Your task to perform on an android device: delete location history Image 0: 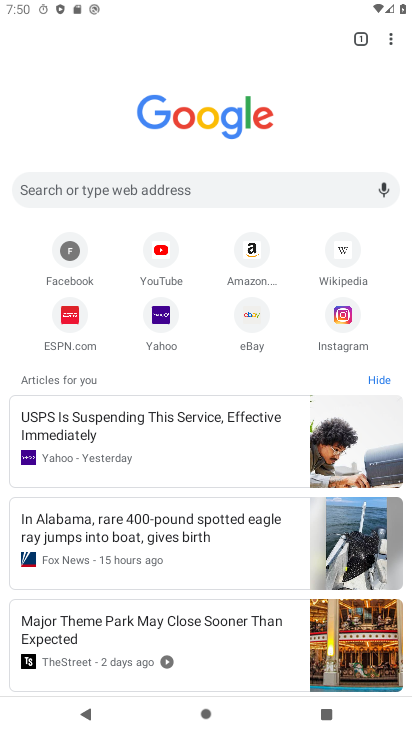
Step 0: press home button
Your task to perform on an android device: delete location history Image 1: 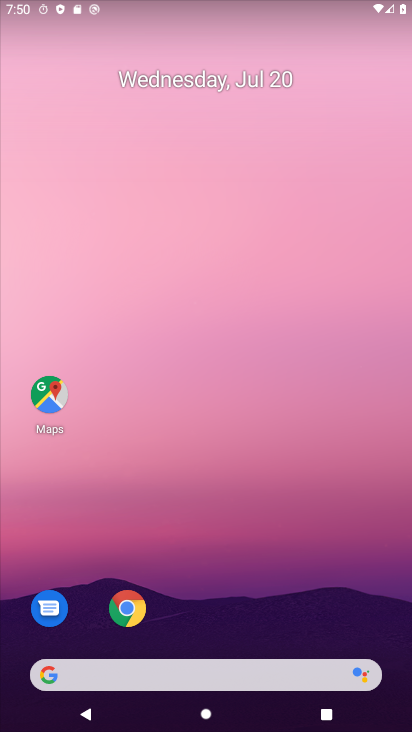
Step 1: click (51, 400)
Your task to perform on an android device: delete location history Image 2: 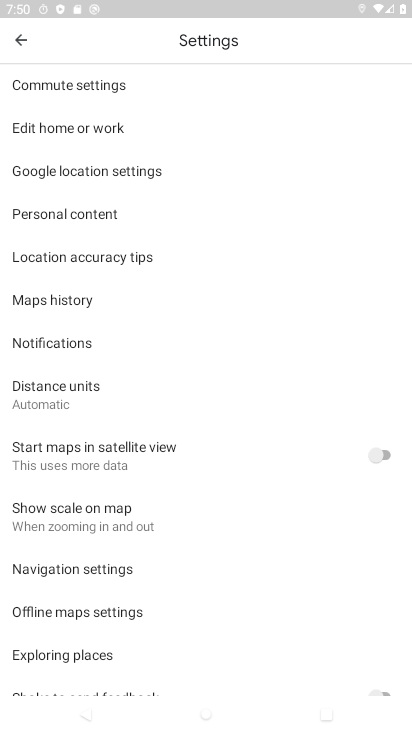
Step 2: click (23, 47)
Your task to perform on an android device: delete location history Image 3: 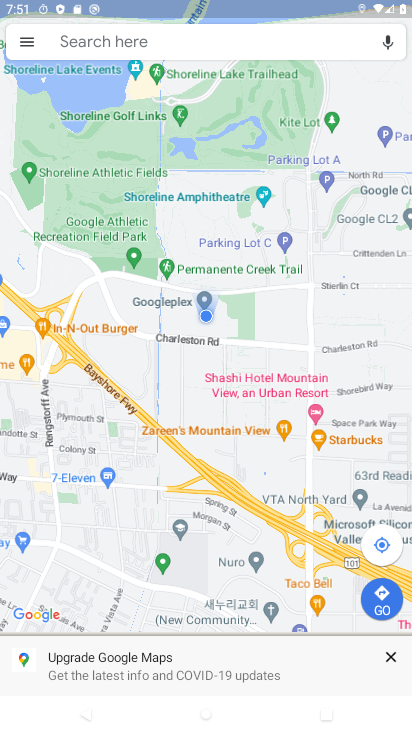
Step 3: click (24, 42)
Your task to perform on an android device: delete location history Image 4: 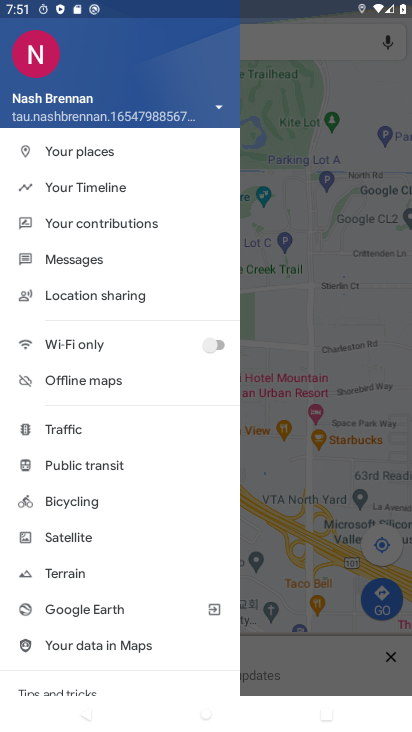
Step 4: click (115, 193)
Your task to perform on an android device: delete location history Image 5: 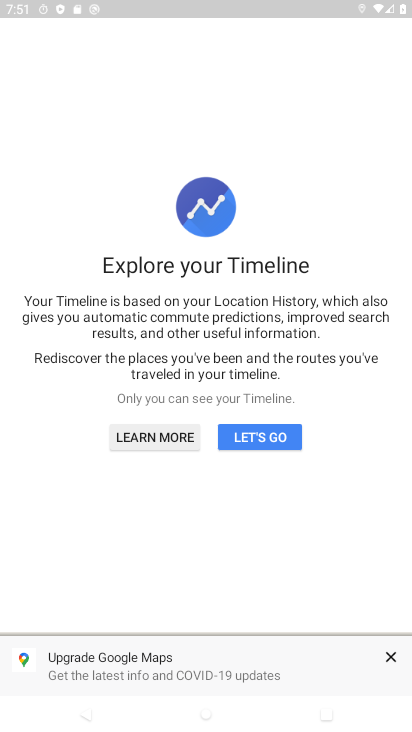
Step 5: click (275, 441)
Your task to perform on an android device: delete location history Image 6: 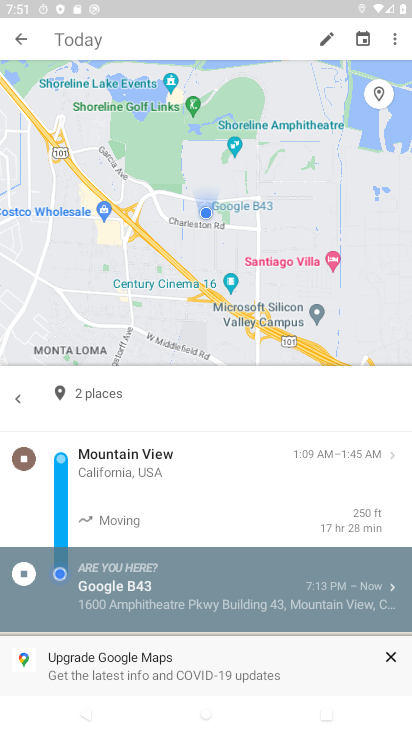
Step 6: click (394, 657)
Your task to perform on an android device: delete location history Image 7: 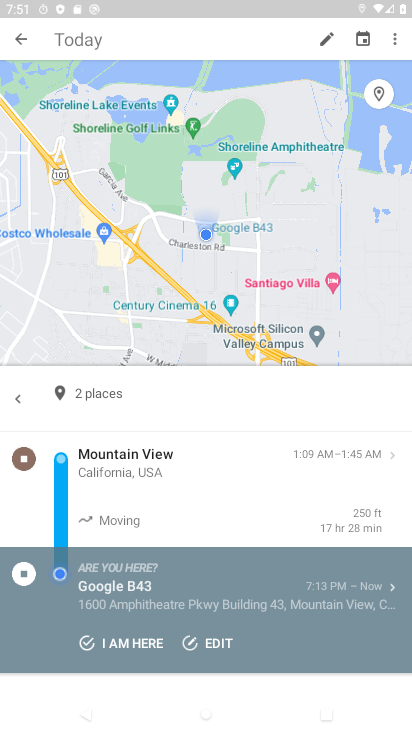
Step 7: click (392, 35)
Your task to perform on an android device: delete location history Image 8: 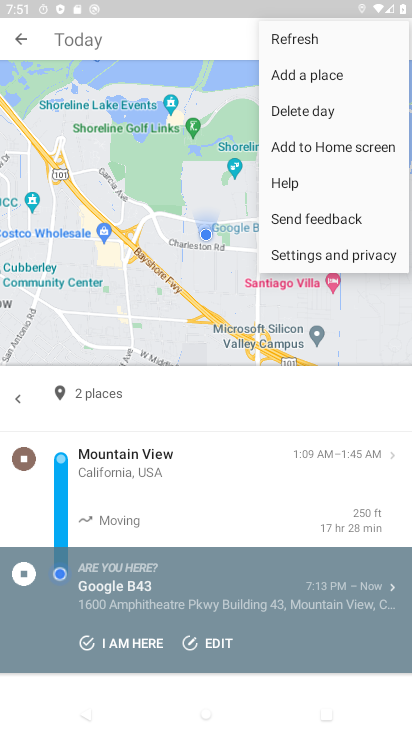
Step 8: click (311, 254)
Your task to perform on an android device: delete location history Image 9: 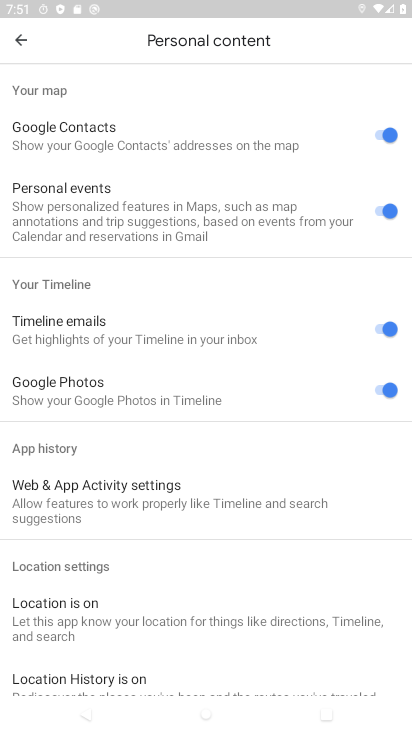
Step 9: drag from (109, 542) to (165, 246)
Your task to perform on an android device: delete location history Image 10: 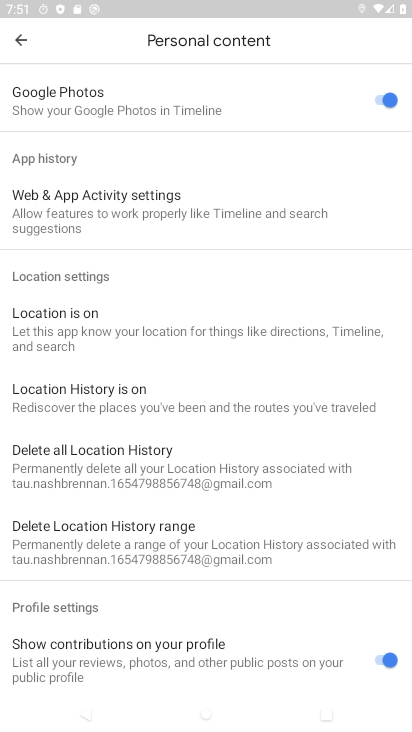
Step 10: click (122, 465)
Your task to perform on an android device: delete location history Image 11: 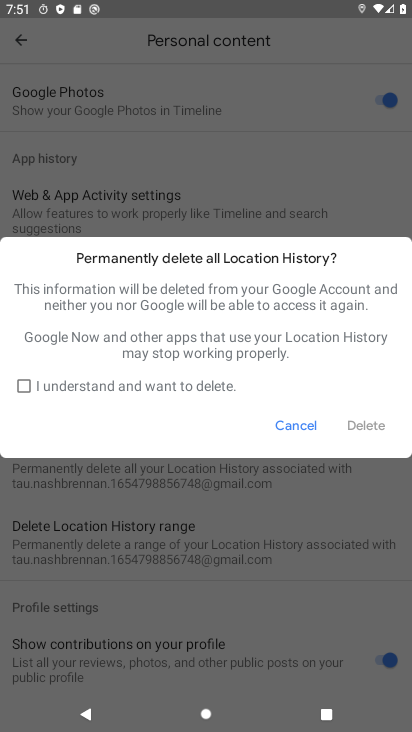
Step 11: click (100, 384)
Your task to perform on an android device: delete location history Image 12: 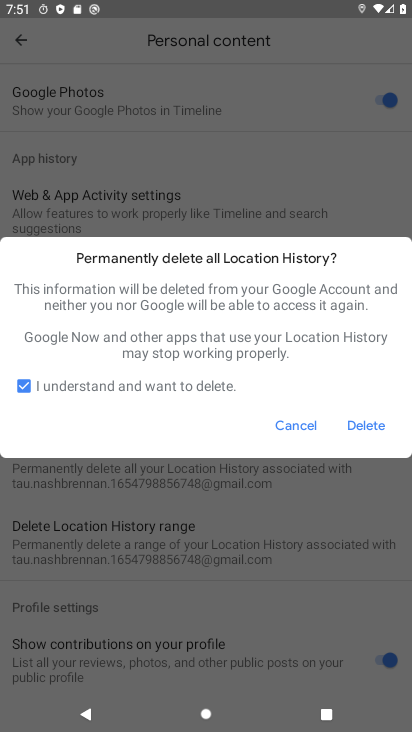
Step 12: click (370, 426)
Your task to perform on an android device: delete location history Image 13: 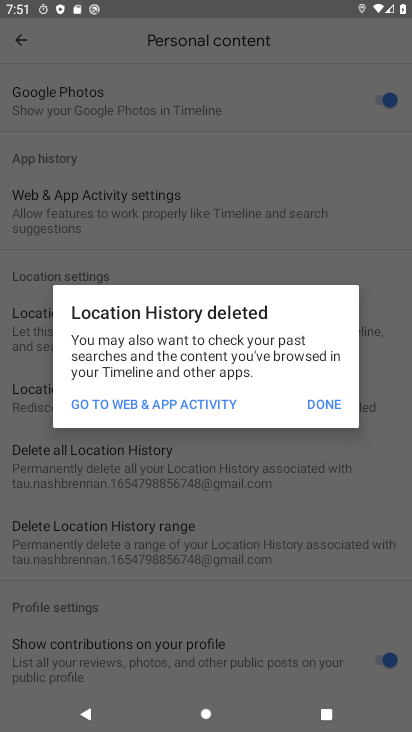
Step 13: click (325, 402)
Your task to perform on an android device: delete location history Image 14: 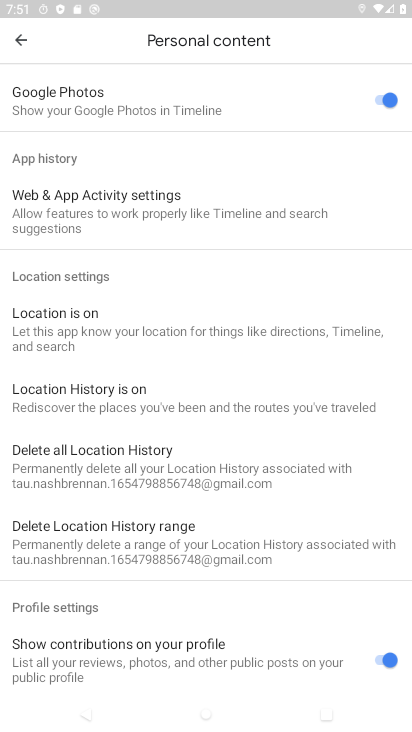
Step 14: task complete